Your task to perform on an android device: Find coffee shops on Maps Image 0: 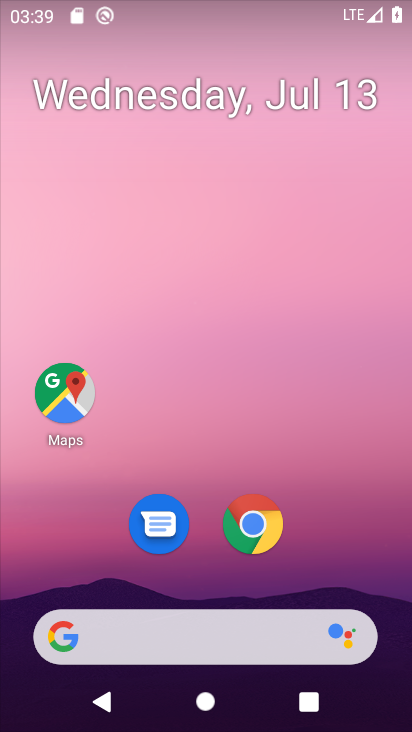
Step 0: click (66, 394)
Your task to perform on an android device: Find coffee shops on Maps Image 1: 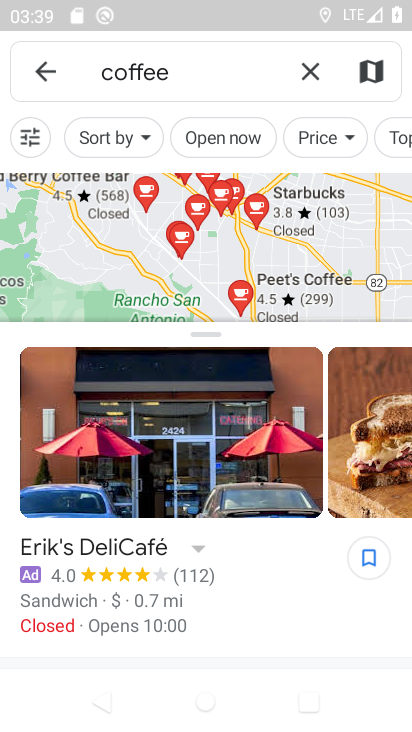
Step 1: task complete